Your task to perform on an android device: Open Yahoo.com Image 0: 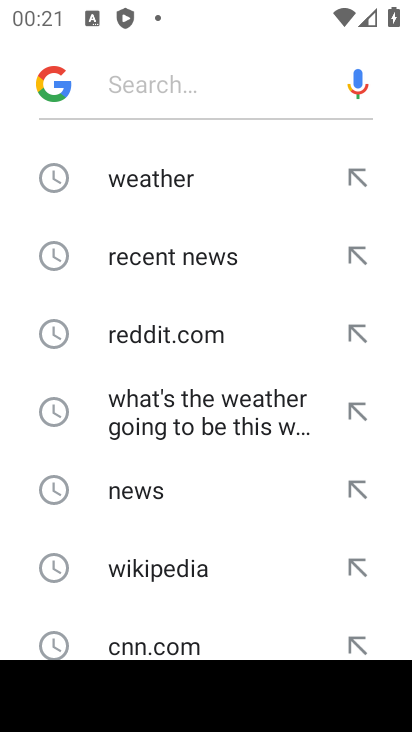
Step 0: type "yahoo.com"
Your task to perform on an android device: Open Yahoo.com Image 1: 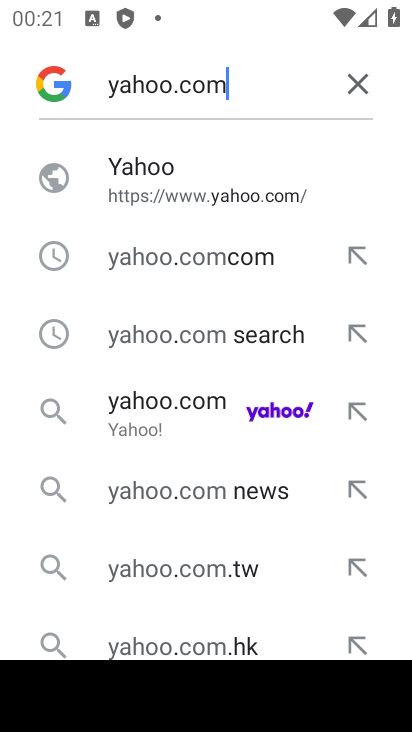
Step 1: click (213, 185)
Your task to perform on an android device: Open Yahoo.com Image 2: 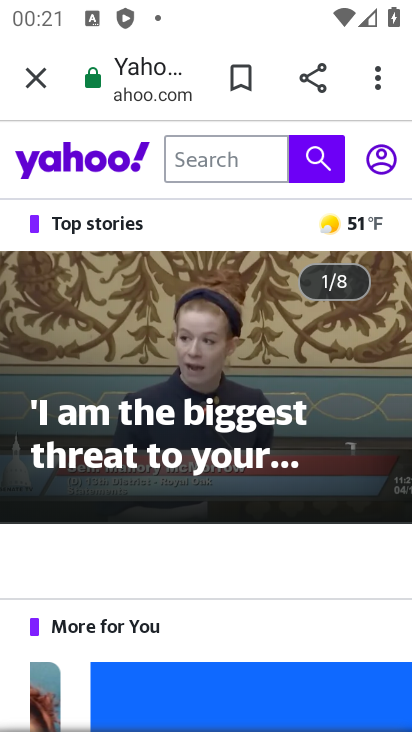
Step 2: task complete